Your task to perform on an android device: stop showing notifications on the lock screen Image 0: 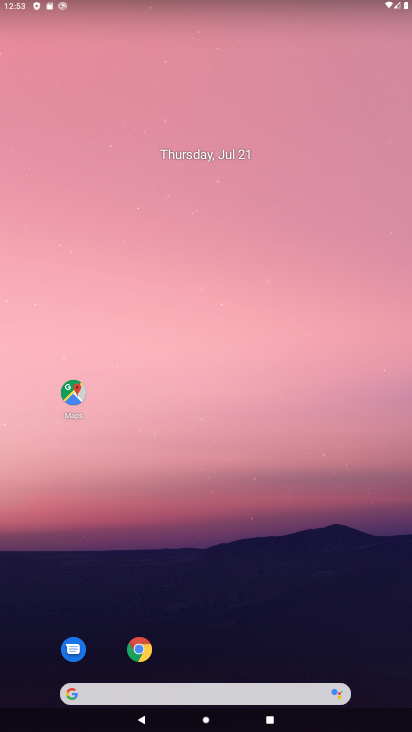
Step 0: drag from (368, 645) to (285, 239)
Your task to perform on an android device: stop showing notifications on the lock screen Image 1: 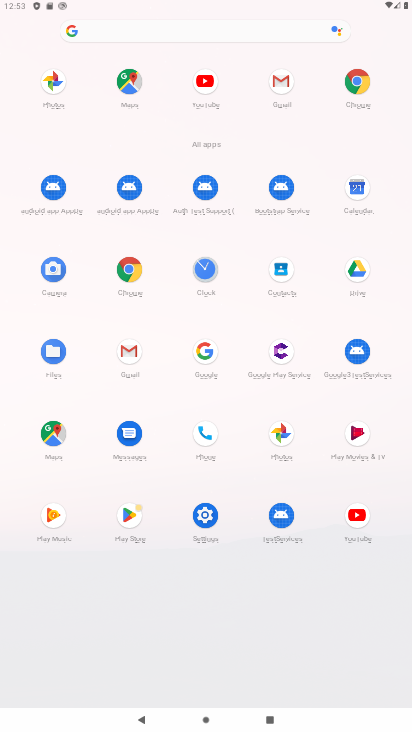
Step 1: click (205, 519)
Your task to perform on an android device: stop showing notifications on the lock screen Image 2: 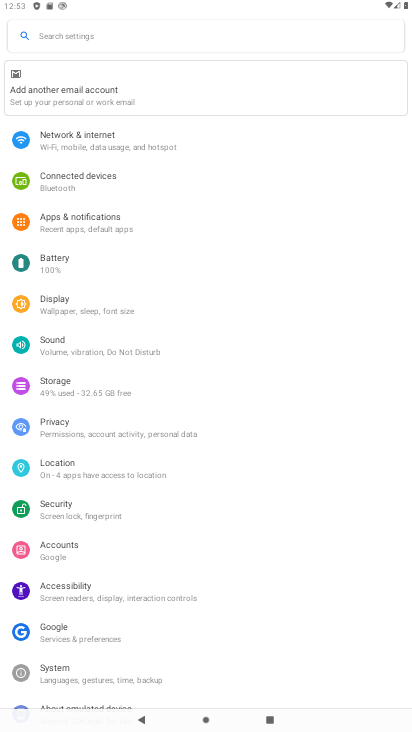
Step 2: click (163, 216)
Your task to perform on an android device: stop showing notifications on the lock screen Image 3: 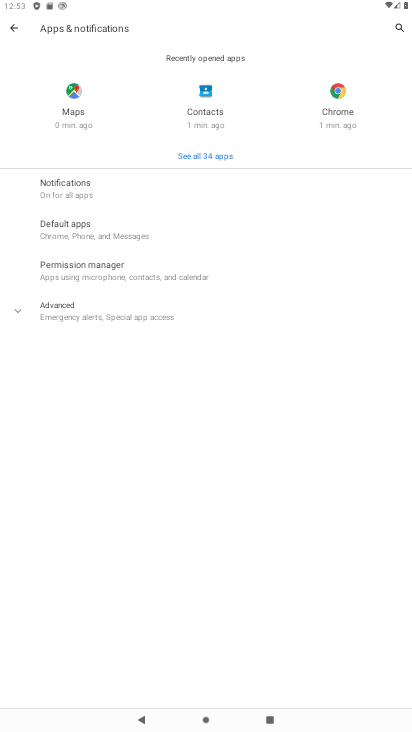
Step 3: click (156, 185)
Your task to perform on an android device: stop showing notifications on the lock screen Image 4: 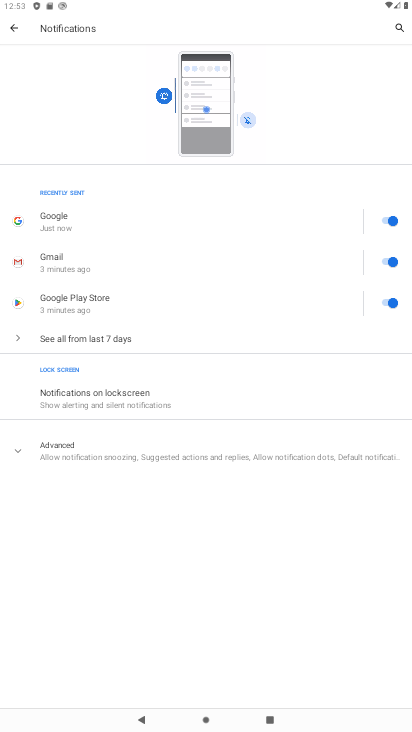
Step 4: click (161, 394)
Your task to perform on an android device: stop showing notifications on the lock screen Image 5: 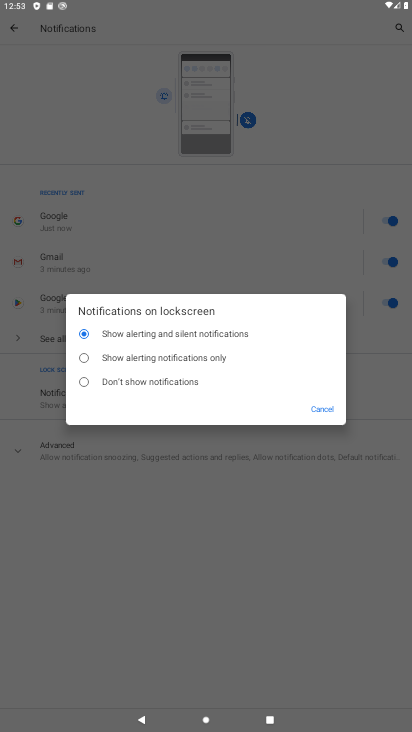
Step 5: click (162, 387)
Your task to perform on an android device: stop showing notifications on the lock screen Image 6: 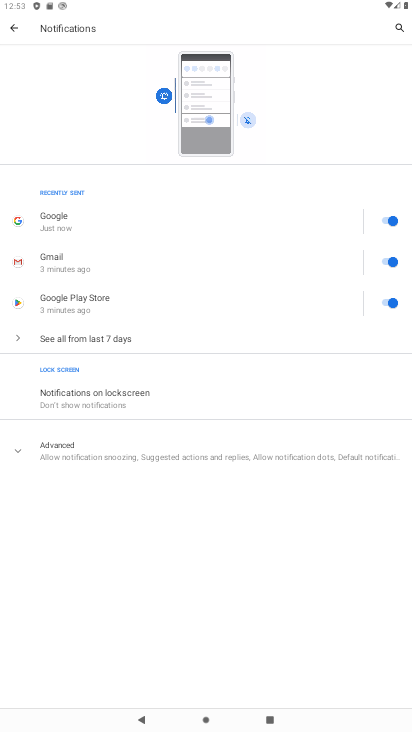
Step 6: task complete